Your task to perform on an android device: Go to Google maps Image 0: 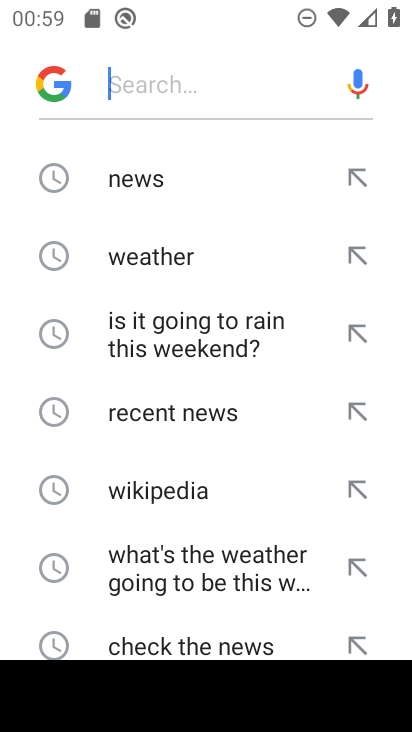
Step 0: press home button
Your task to perform on an android device: Go to Google maps Image 1: 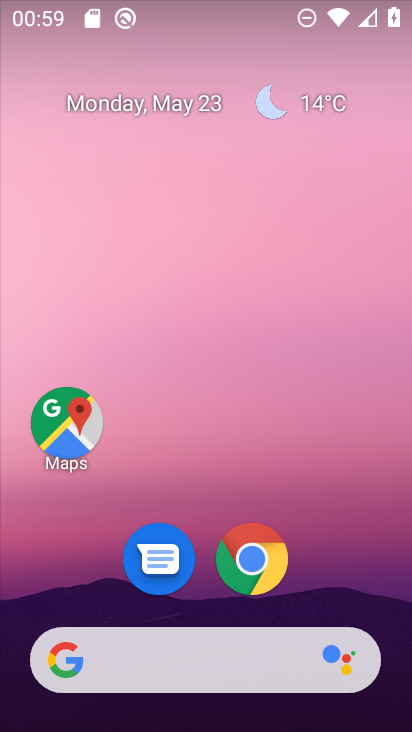
Step 1: click (70, 428)
Your task to perform on an android device: Go to Google maps Image 2: 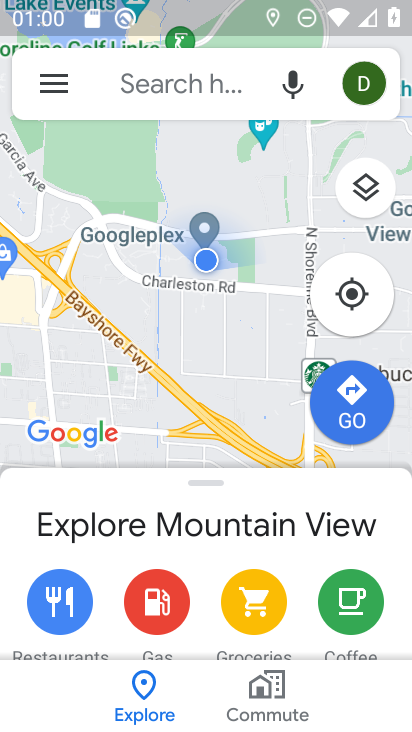
Step 2: task complete